Your task to perform on an android device: set the timer Image 0: 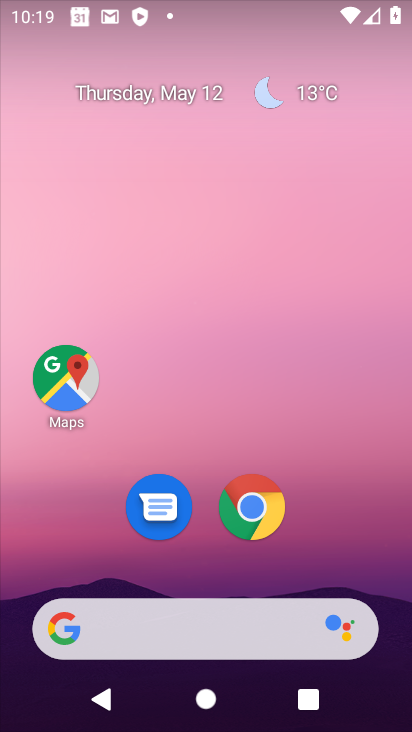
Step 0: drag from (304, 558) to (200, 58)
Your task to perform on an android device: set the timer Image 1: 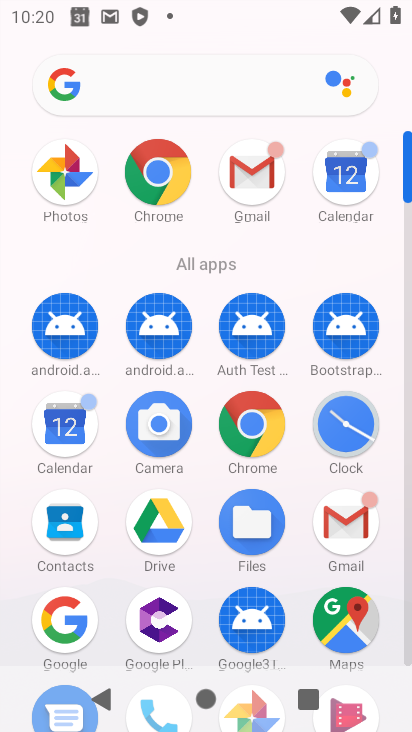
Step 1: drag from (388, 447) to (385, 323)
Your task to perform on an android device: set the timer Image 2: 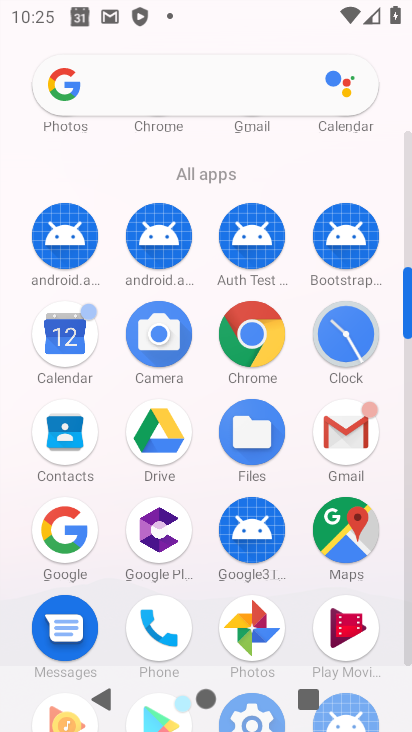
Step 2: drag from (266, 679) to (300, 410)
Your task to perform on an android device: set the timer Image 3: 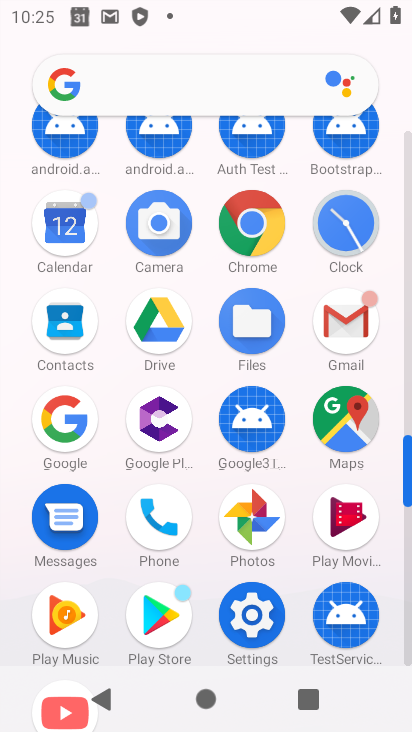
Step 3: drag from (296, 503) to (290, 256)
Your task to perform on an android device: set the timer Image 4: 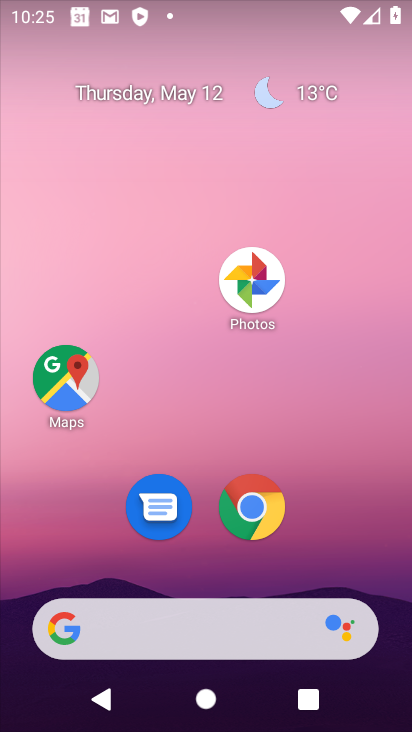
Step 4: drag from (342, 520) to (365, 193)
Your task to perform on an android device: set the timer Image 5: 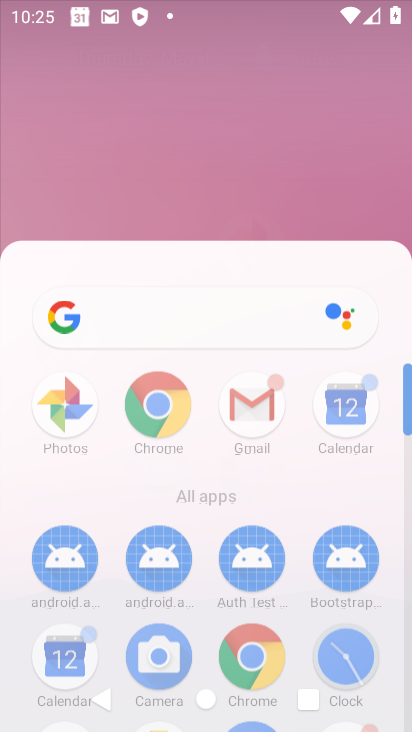
Step 5: drag from (365, 193) to (364, 156)
Your task to perform on an android device: set the timer Image 6: 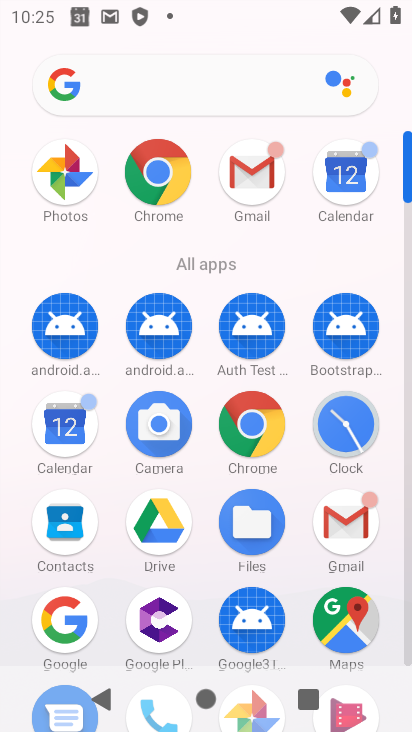
Step 6: click (409, 659)
Your task to perform on an android device: set the timer Image 7: 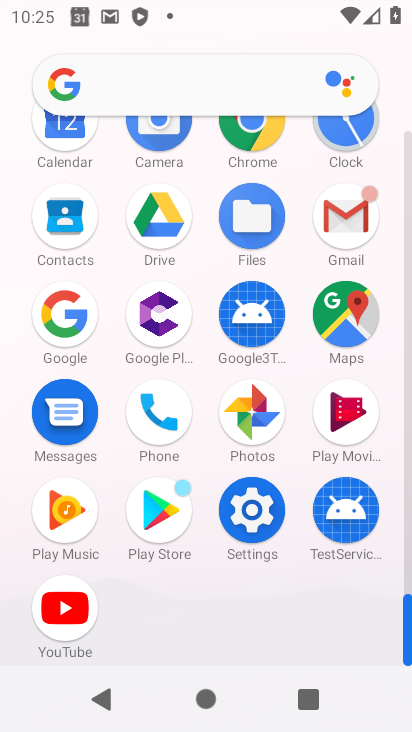
Step 7: drag from (405, 637) to (351, 254)
Your task to perform on an android device: set the timer Image 8: 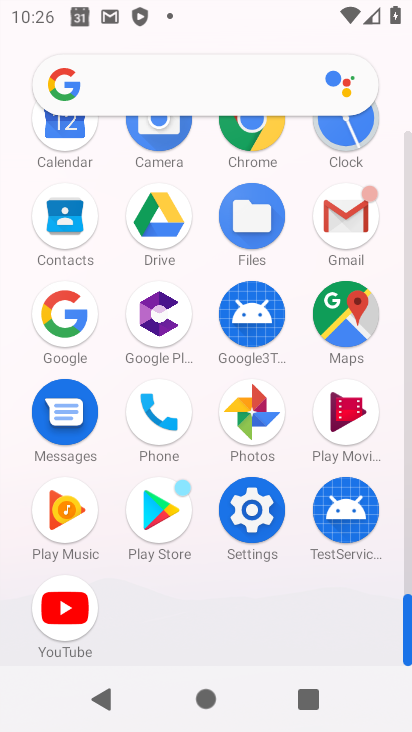
Step 8: click (345, 123)
Your task to perform on an android device: set the timer Image 9: 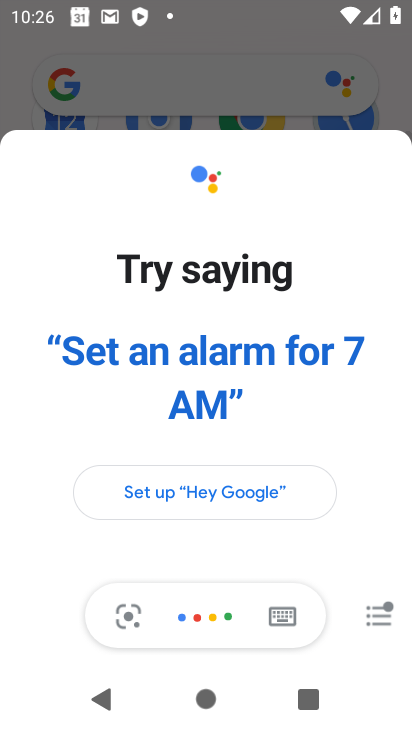
Step 9: click (345, 123)
Your task to perform on an android device: set the timer Image 10: 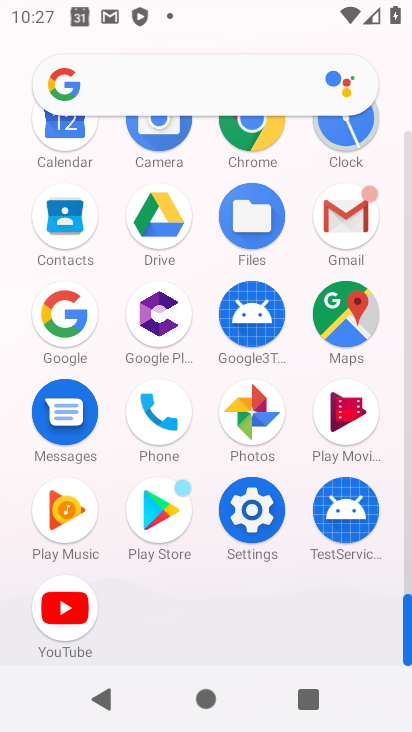
Step 10: click (406, 366)
Your task to perform on an android device: set the timer Image 11: 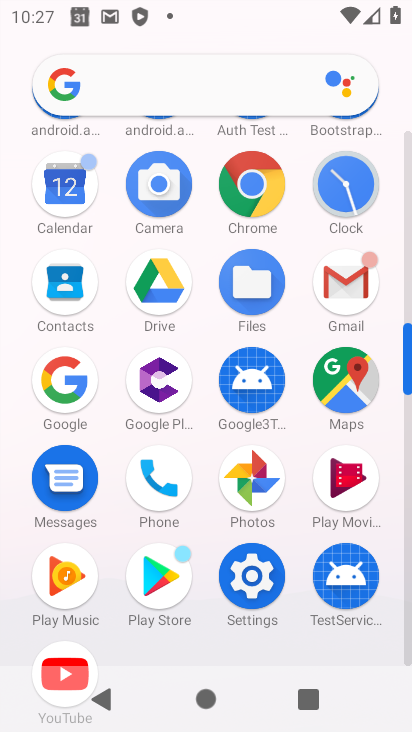
Step 11: click (406, 366)
Your task to perform on an android device: set the timer Image 12: 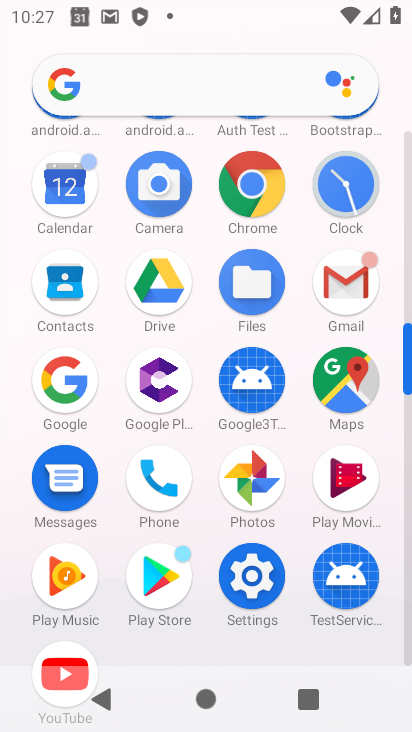
Step 12: click (406, 366)
Your task to perform on an android device: set the timer Image 13: 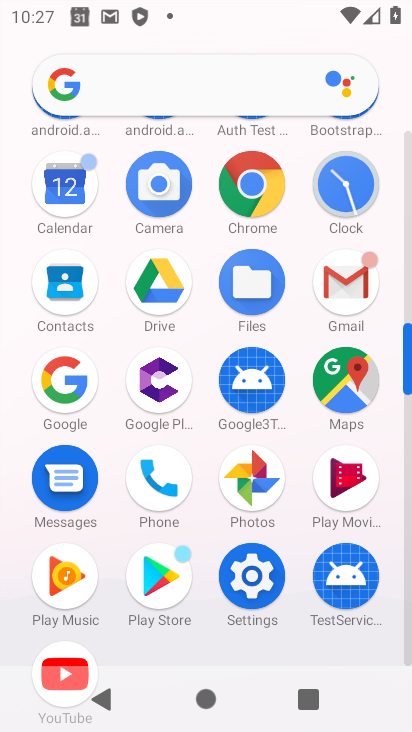
Step 13: click (406, 366)
Your task to perform on an android device: set the timer Image 14: 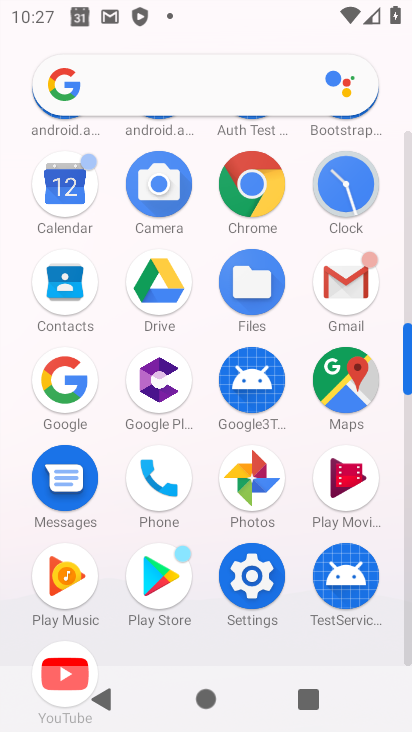
Step 14: click (343, 186)
Your task to perform on an android device: set the timer Image 15: 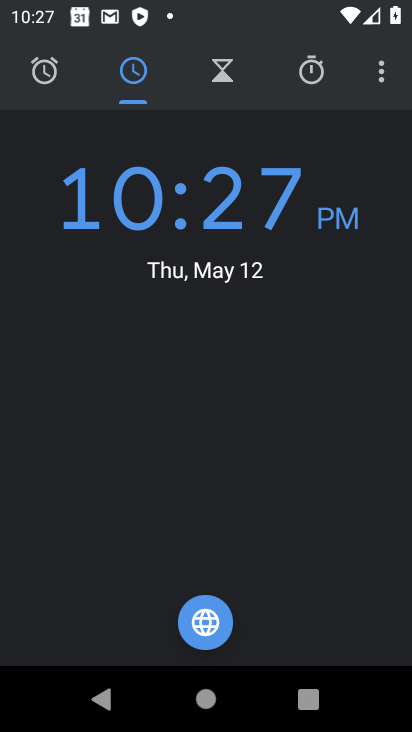
Step 15: click (225, 72)
Your task to perform on an android device: set the timer Image 16: 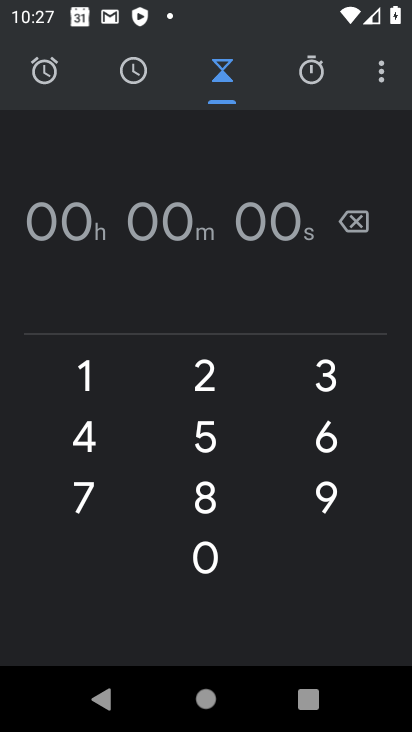
Step 16: click (215, 368)
Your task to perform on an android device: set the timer Image 17: 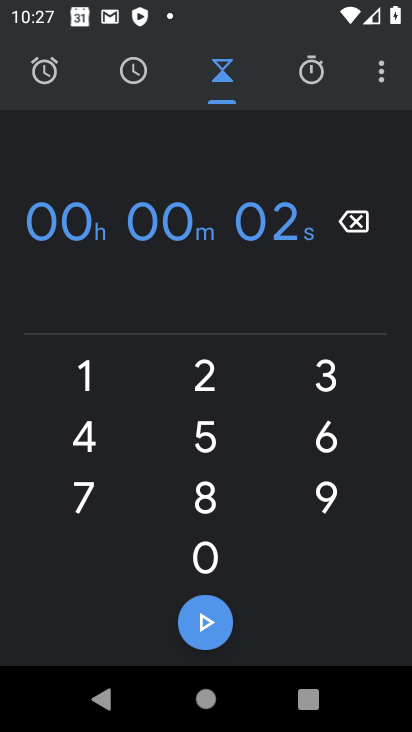
Step 17: click (198, 619)
Your task to perform on an android device: set the timer Image 18: 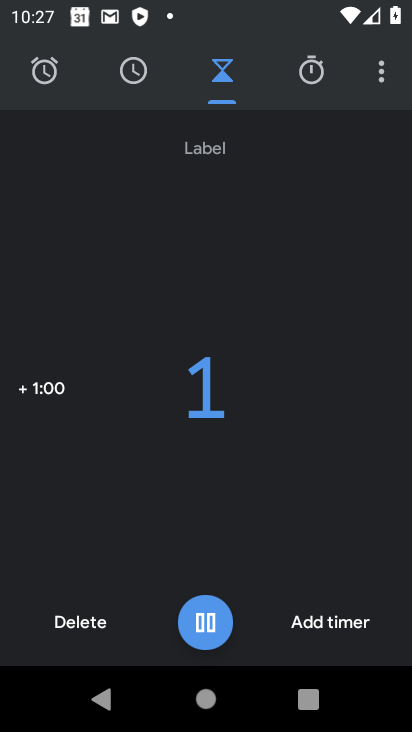
Step 18: task complete